Your task to perform on an android device: Go to sound settings Image 0: 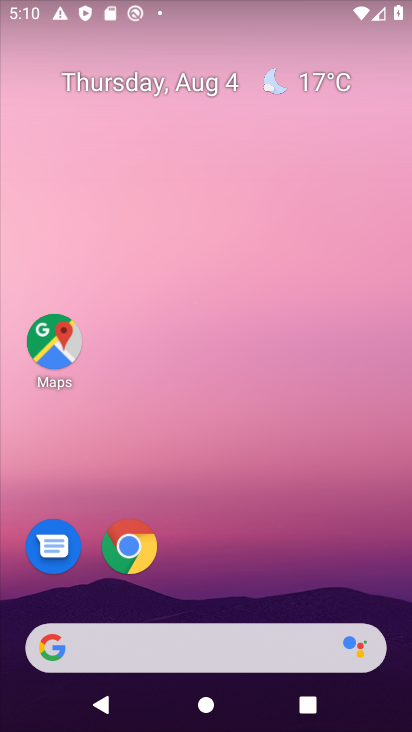
Step 0: drag from (171, 386) to (171, 231)
Your task to perform on an android device: Go to sound settings Image 1: 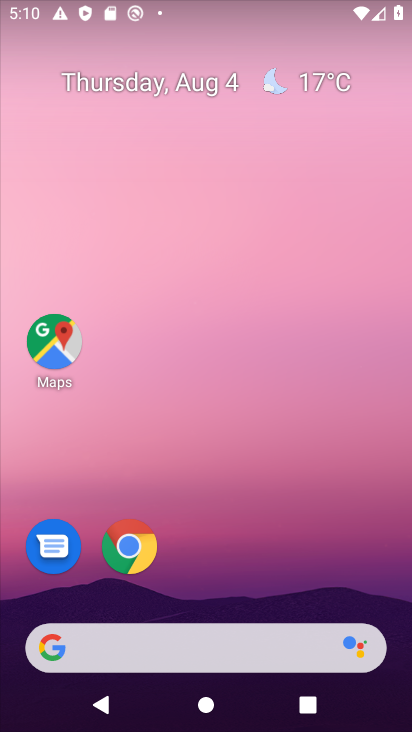
Step 1: drag from (198, 536) to (161, 188)
Your task to perform on an android device: Go to sound settings Image 2: 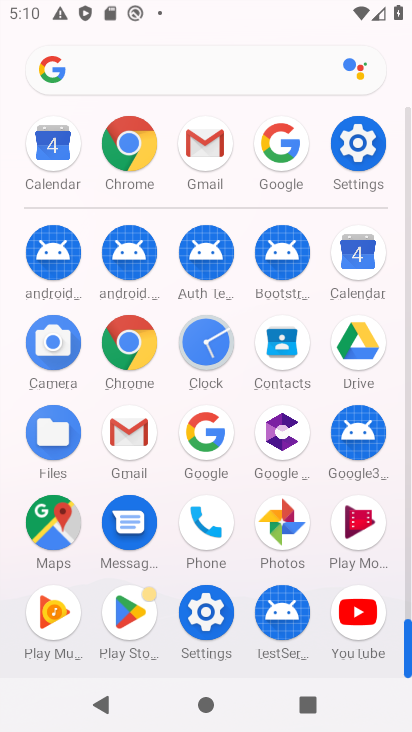
Step 2: click (354, 142)
Your task to perform on an android device: Go to sound settings Image 3: 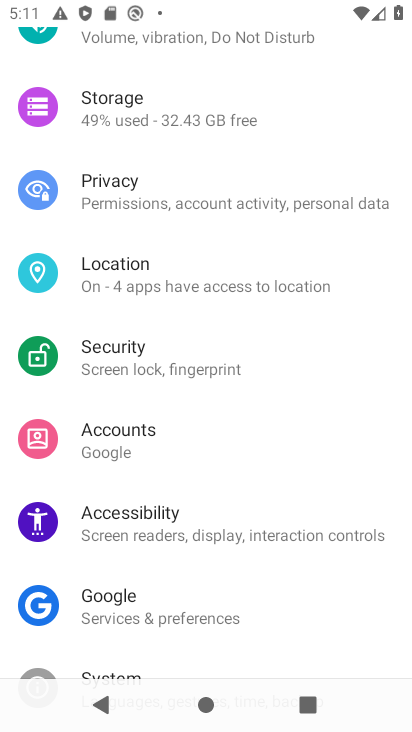
Step 3: drag from (157, 311) to (149, 579)
Your task to perform on an android device: Go to sound settings Image 4: 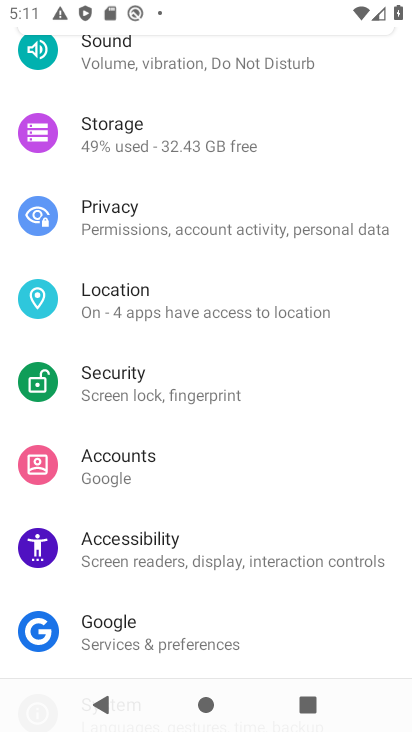
Step 4: drag from (134, 173) to (112, 698)
Your task to perform on an android device: Go to sound settings Image 5: 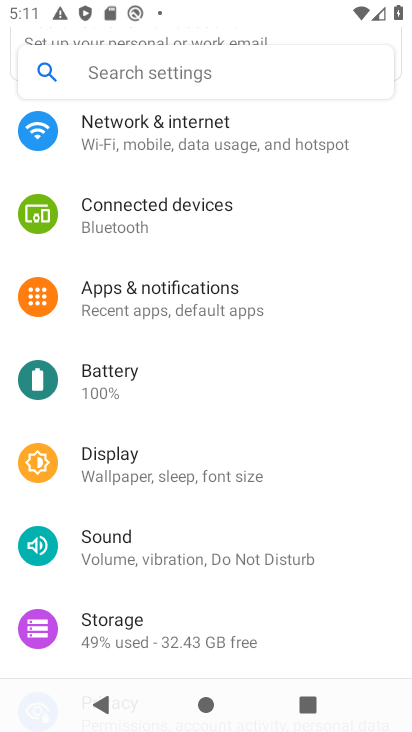
Step 5: click (97, 160)
Your task to perform on an android device: Go to sound settings Image 6: 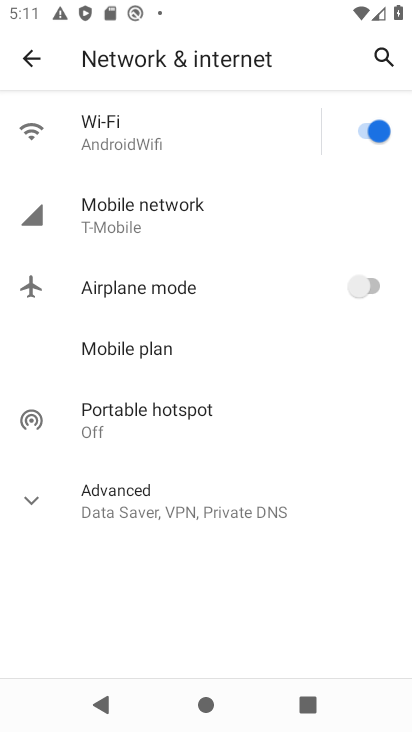
Step 6: task complete